Your task to perform on an android device: install app "Google Docs" Image 0: 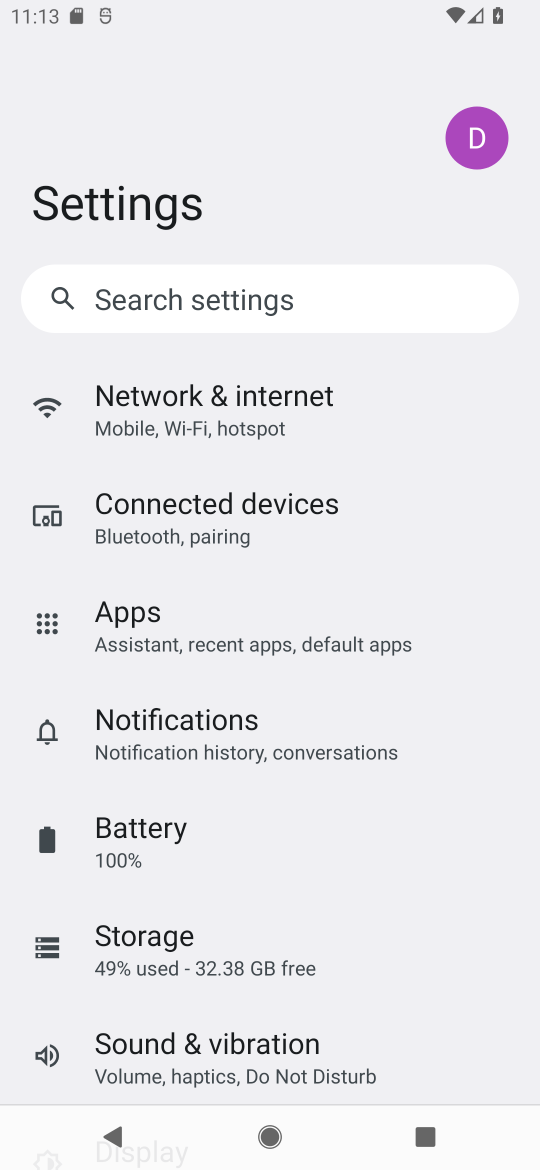
Step 0: press home button
Your task to perform on an android device: install app "Google Docs" Image 1: 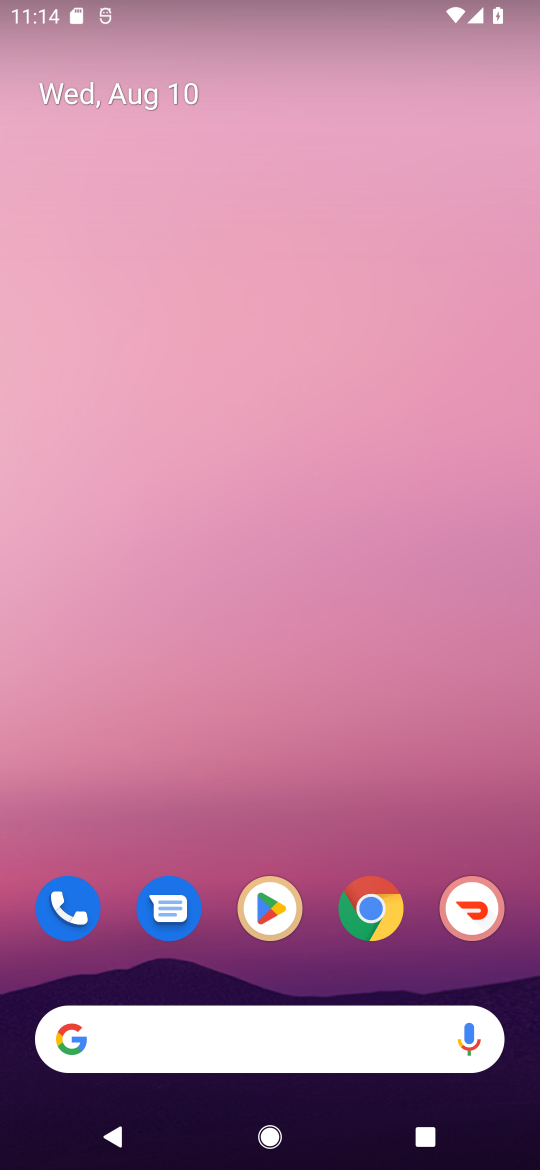
Step 1: click (281, 917)
Your task to perform on an android device: install app "Google Docs" Image 2: 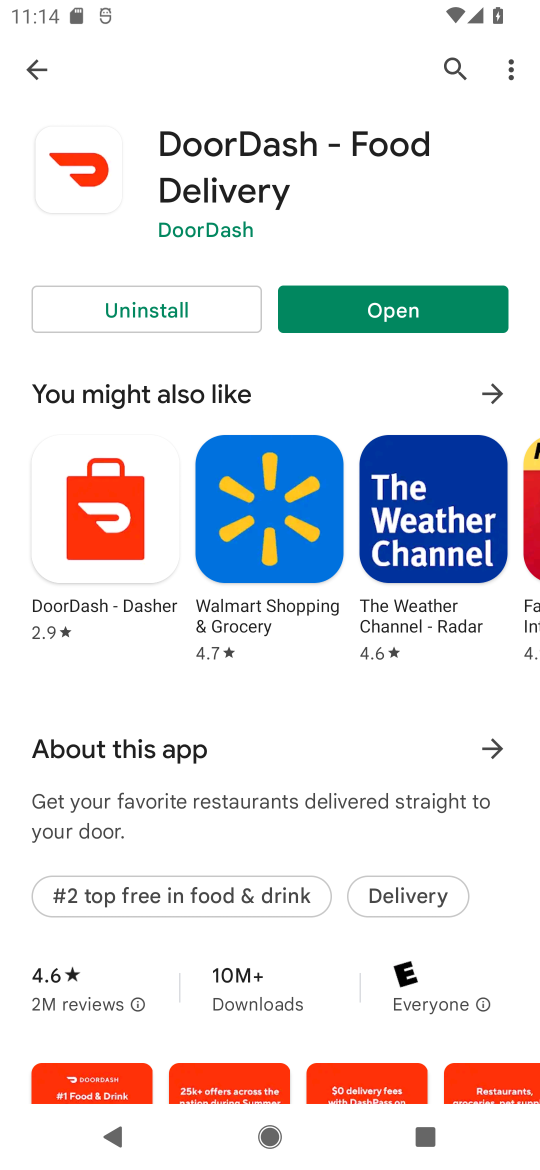
Step 2: click (447, 67)
Your task to perform on an android device: install app "Google Docs" Image 3: 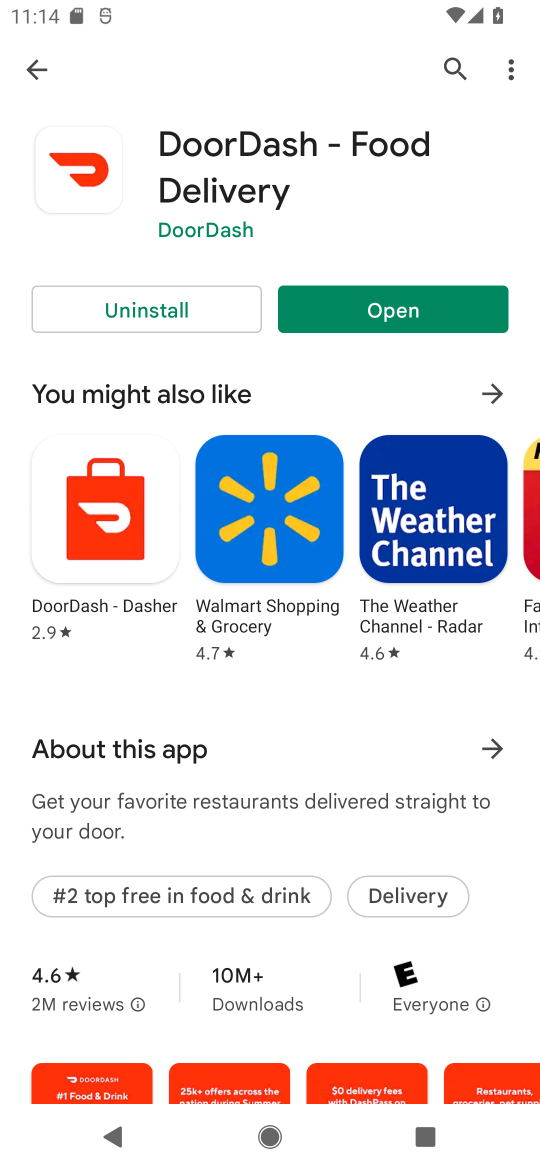
Step 3: click (458, 69)
Your task to perform on an android device: install app "Google Docs" Image 4: 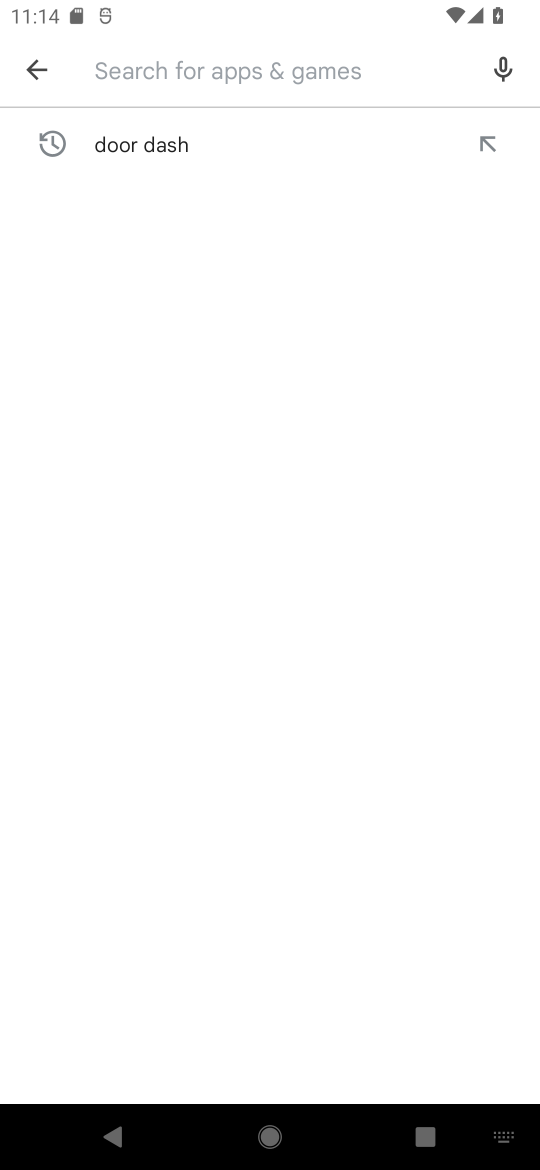
Step 4: type "google docs"
Your task to perform on an android device: install app "Google Docs" Image 5: 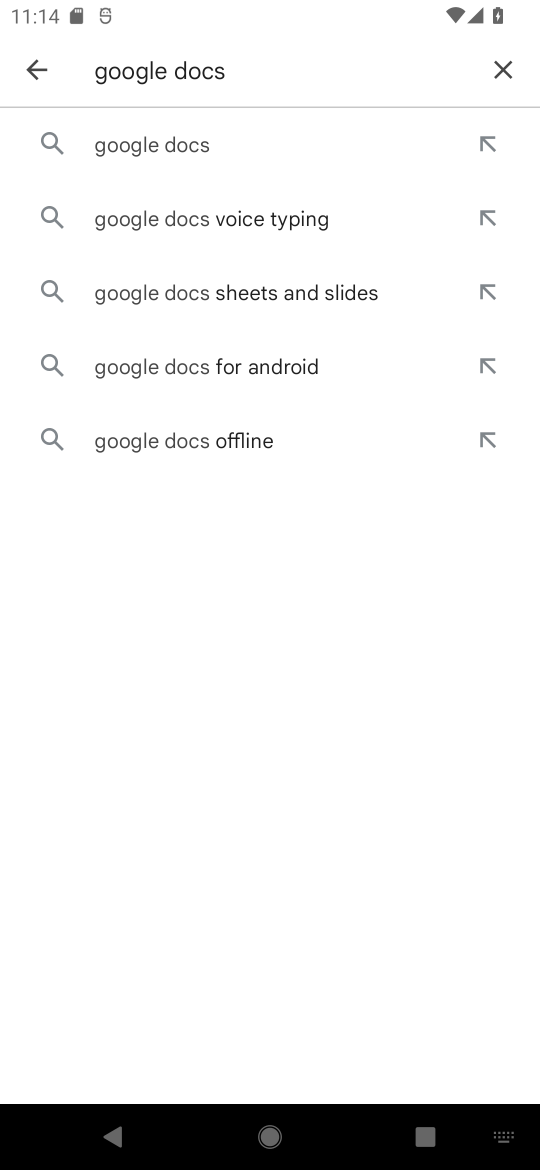
Step 5: click (254, 150)
Your task to perform on an android device: install app "Google Docs" Image 6: 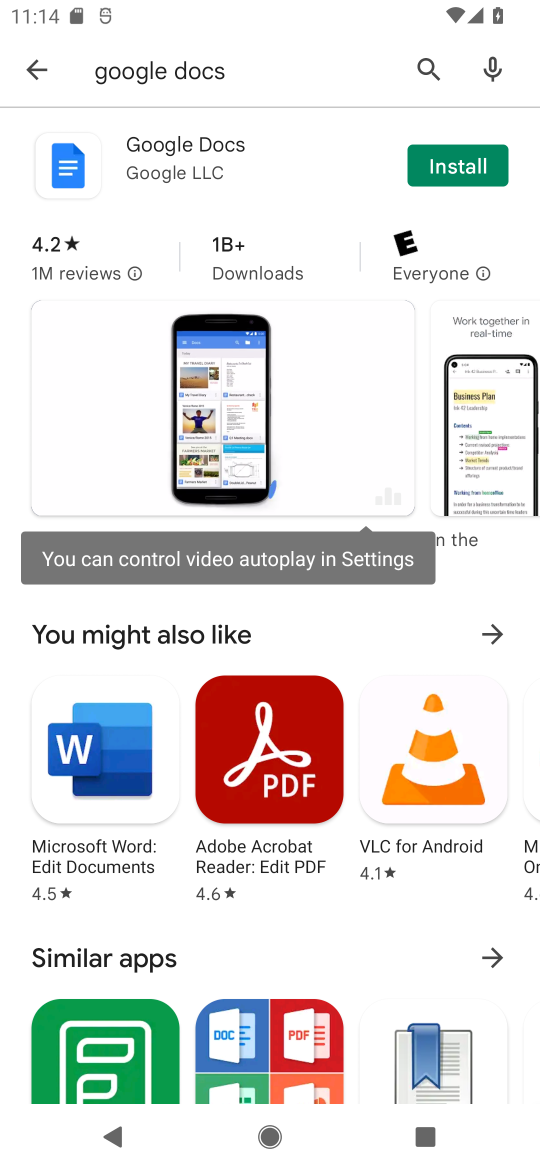
Step 6: click (479, 164)
Your task to perform on an android device: install app "Google Docs" Image 7: 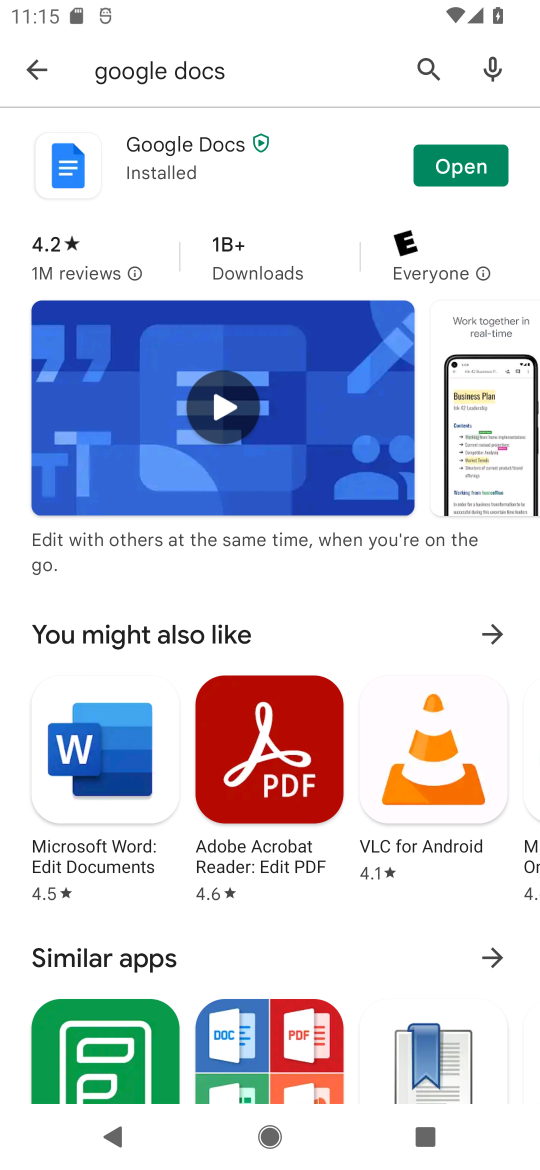
Step 7: task complete